Your task to perform on an android device: Go to Maps Image 0: 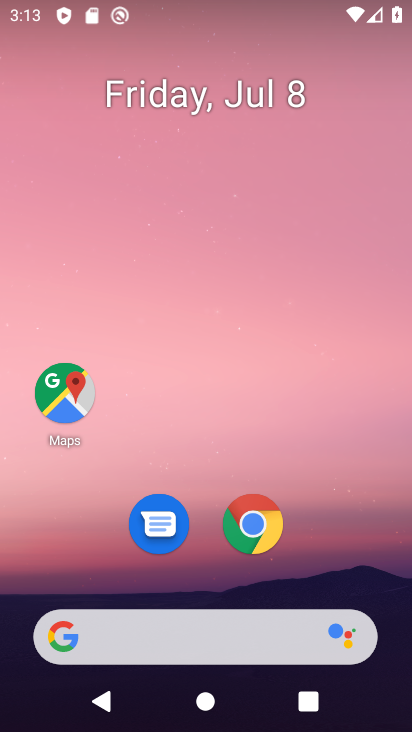
Step 0: click (68, 374)
Your task to perform on an android device: Go to Maps Image 1: 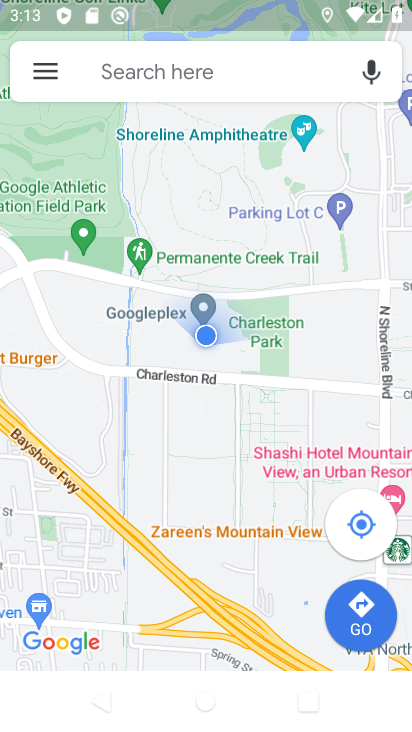
Step 1: task complete